Your task to perform on an android device: Open Yahoo.com Image 0: 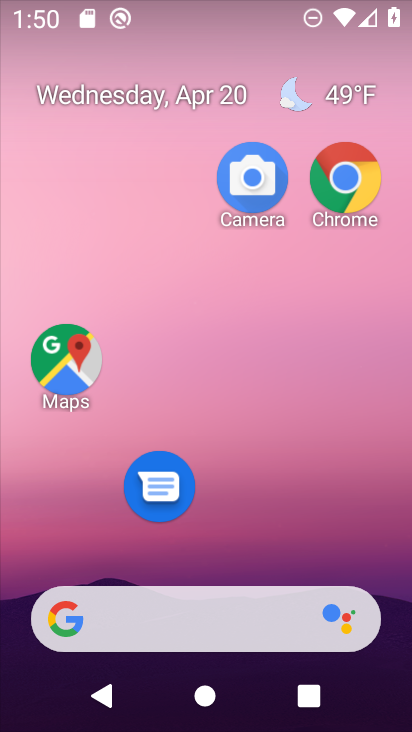
Step 0: drag from (300, 634) to (294, 139)
Your task to perform on an android device: Open Yahoo.com Image 1: 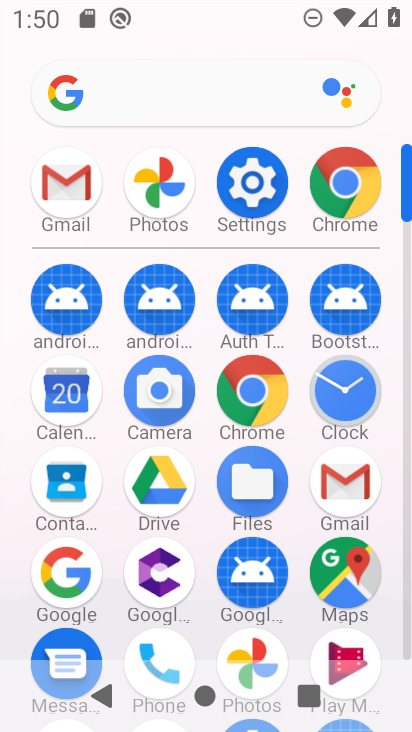
Step 1: click (357, 183)
Your task to perform on an android device: Open Yahoo.com Image 2: 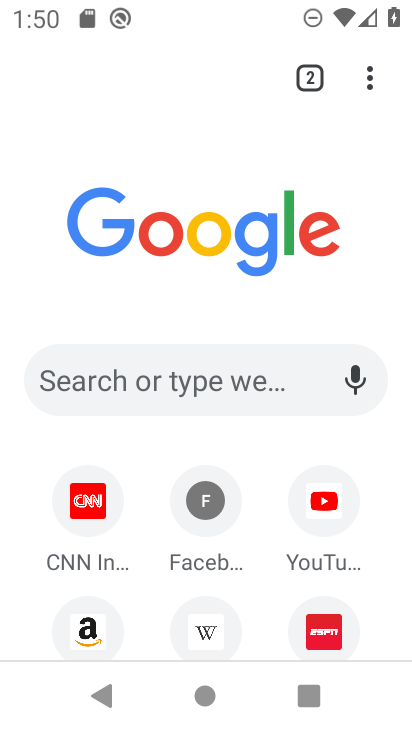
Step 2: click (173, 374)
Your task to perform on an android device: Open Yahoo.com Image 3: 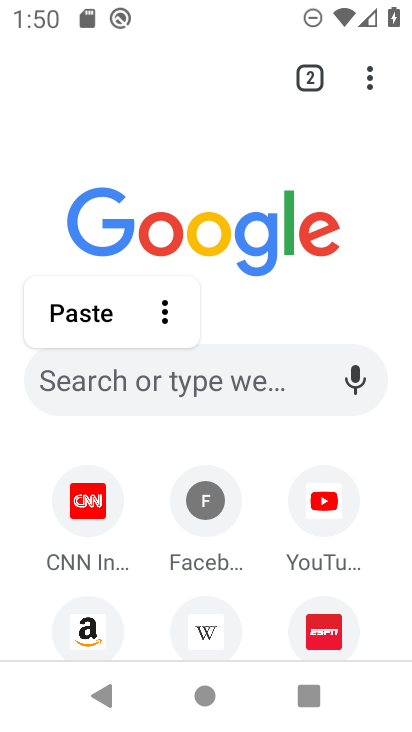
Step 3: click (163, 385)
Your task to perform on an android device: Open Yahoo.com Image 4: 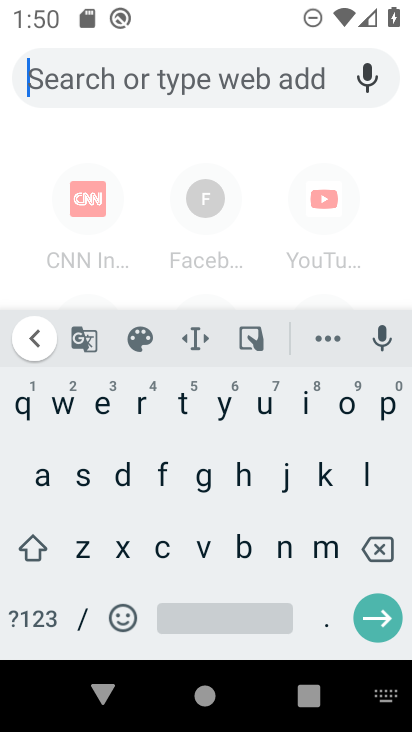
Step 4: click (222, 414)
Your task to perform on an android device: Open Yahoo.com Image 5: 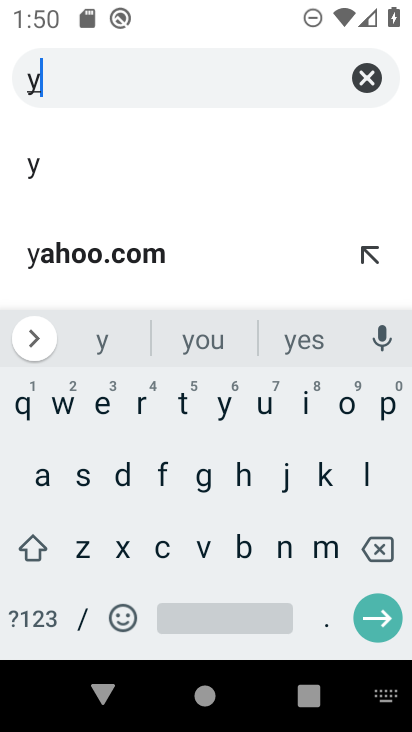
Step 5: click (101, 264)
Your task to perform on an android device: Open Yahoo.com Image 6: 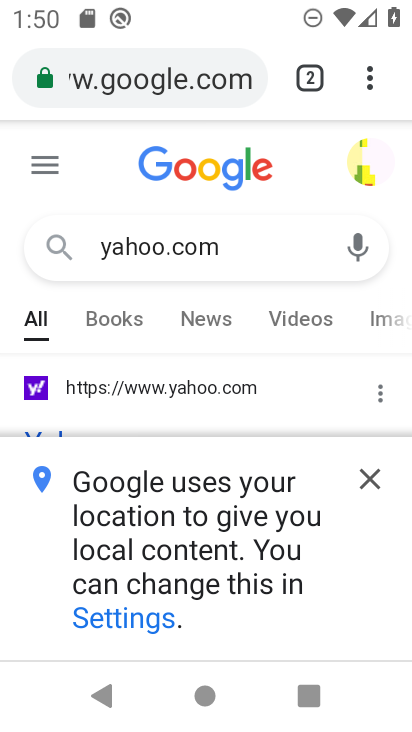
Step 6: click (101, 388)
Your task to perform on an android device: Open Yahoo.com Image 7: 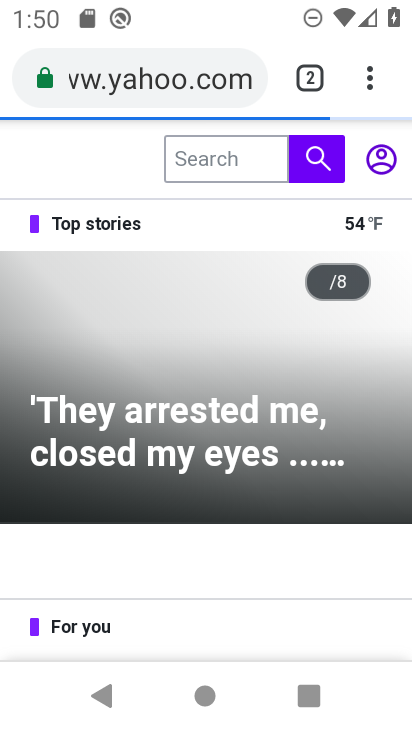
Step 7: task complete